Your task to perform on an android device: Go to accessibility settings Image 0: 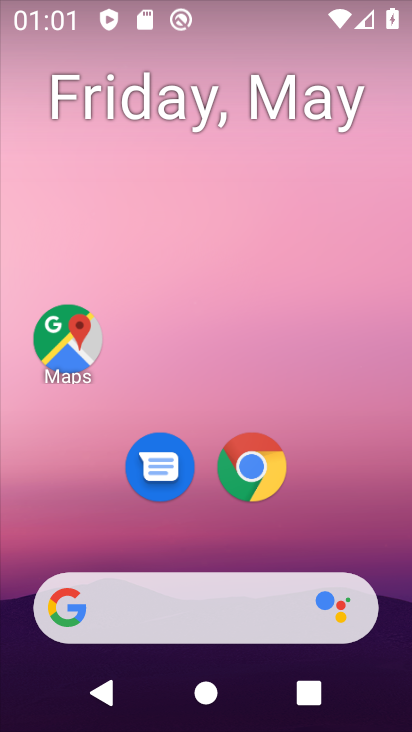
Step 0: drag from (241, 635) to (207, 249)
Your task to perform on an android device: Go to accessibility settings Image 1: 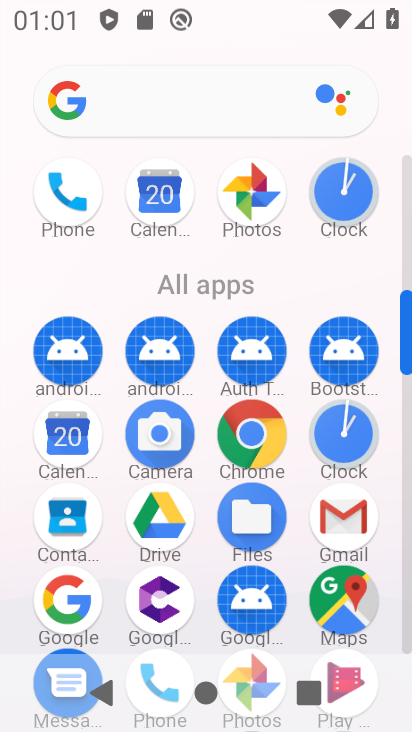
Step 1: drag from (196, 562) to (190, 420)
Your task to perform on an android device: Go to accessibility settings Image 2: 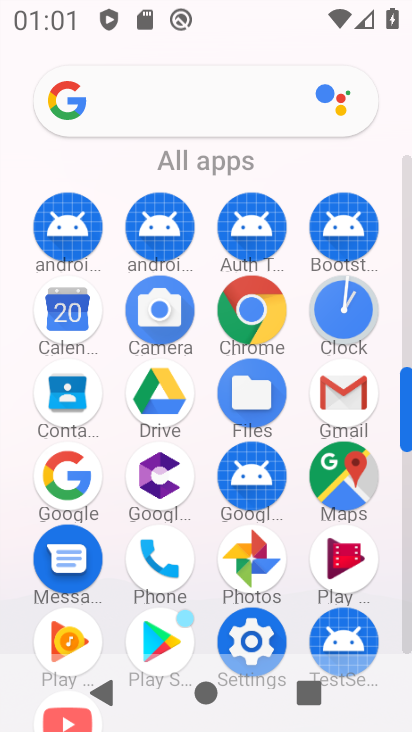
Step 2: click (245, 631)
Your task to perform on an android device: Go to accessibility settings Image 3: 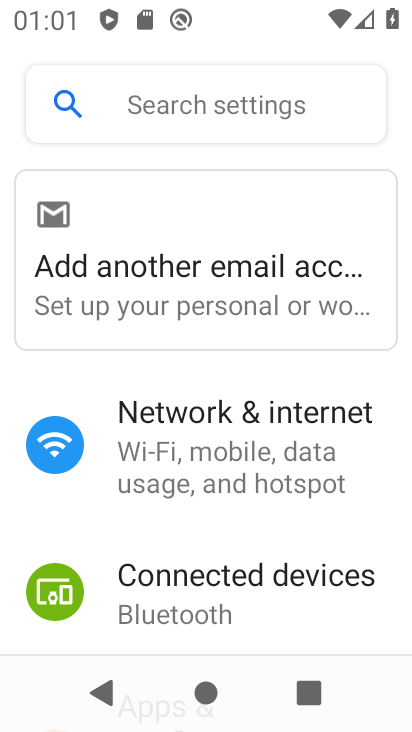
Step 3: click (163, 123)
Your task to perform on an android device: Go to accessibility settings Image 4: 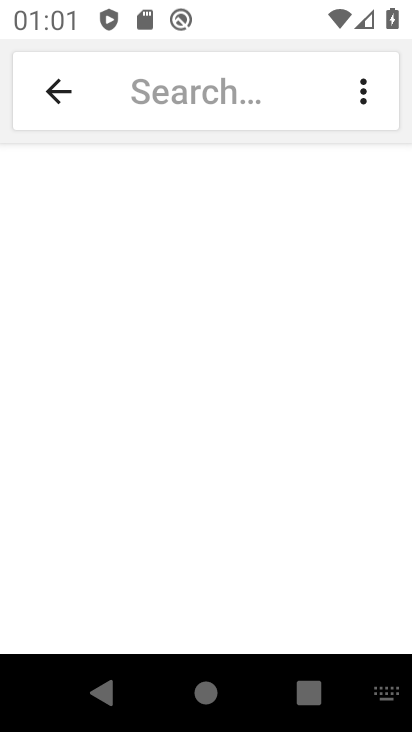
Step 4: click (377, 699)
Your task to perform on an android device: Go to accessibility settings Image 5: 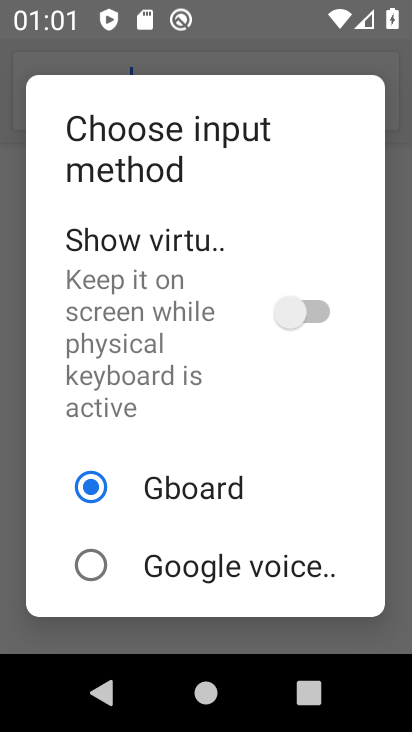
Step 5: click (299, 326)
Your task to perform on an android device: Go to accessibility settings Image 6: 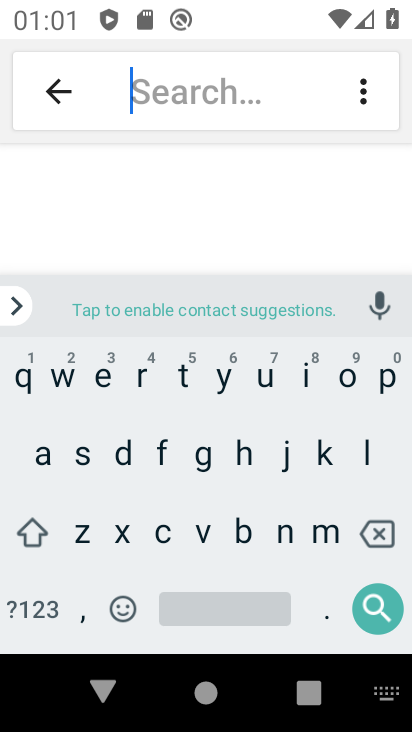
Step 6: click (41, 469)
Your task to perform on an android device: Go to accessibility settings Image 7: 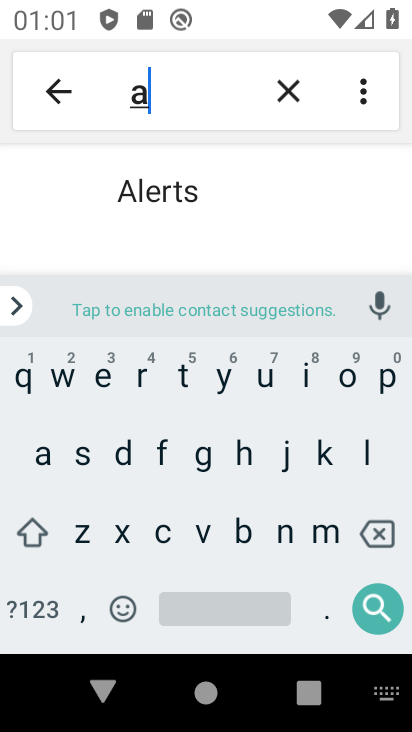
Step 7: click (159, 540)
Your task to perform on an android device: Go to accessibility settings Image 8: 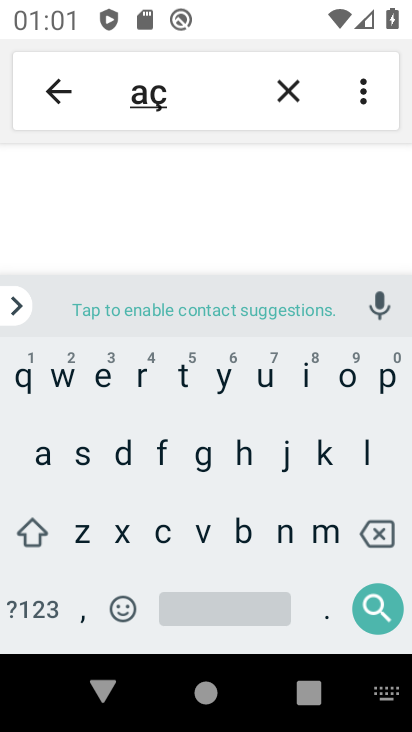
Step 8: click (381, 520)
Your task to perform on an android device: Go to accessibility settings Image 9: 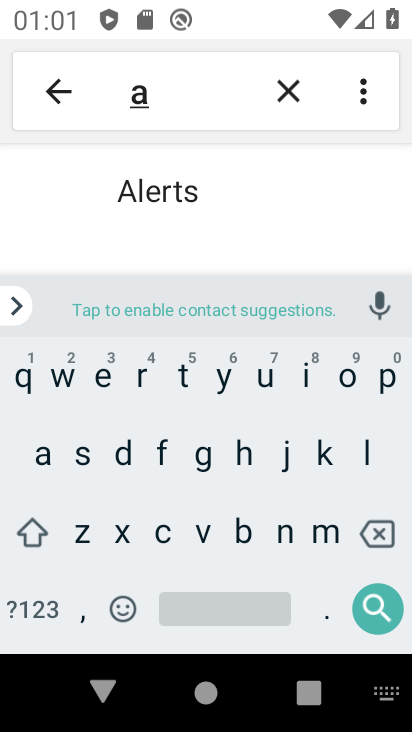
Step 9: click (154, 535)
Your task to perform on an android device: Go to accessibility settings Image 10: 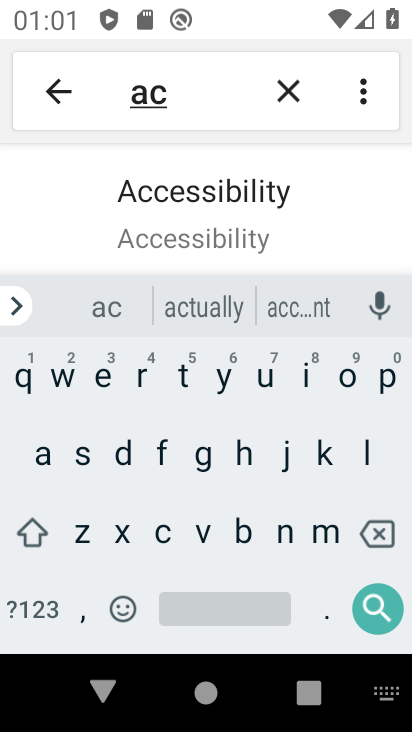
Step 10: click (203, 217)
Your task to perform on an android device: Go to accessibility settings Image 11: 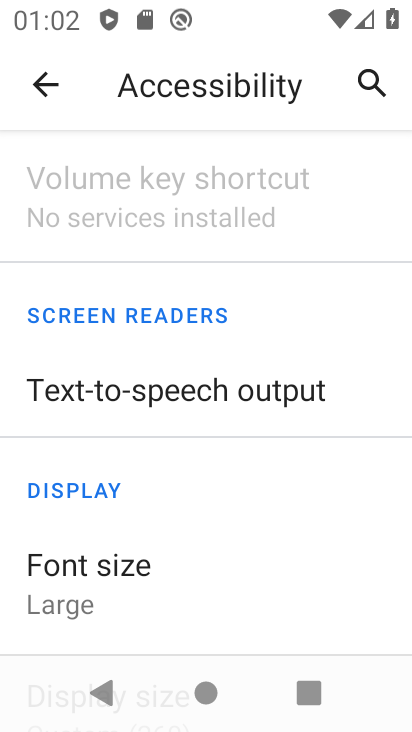
Step 11: task complete